Your task to perform on an android device: Go to CNN.com Image 0: 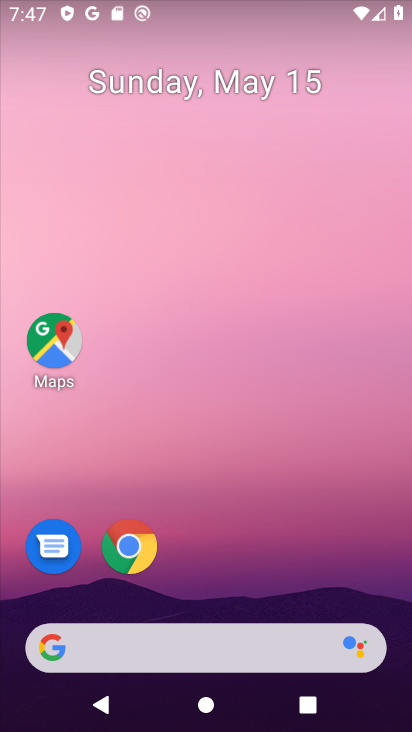
Step 0: click (247, 646)
Your task to perform on an android device: Go to CNN.com Image 1: 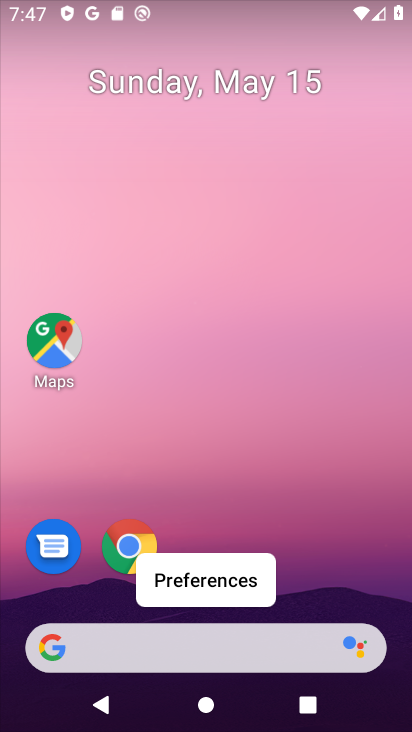
Step 1: click (244, 660)
Your task to perform on an android device: Go to CNN.com Image 2: 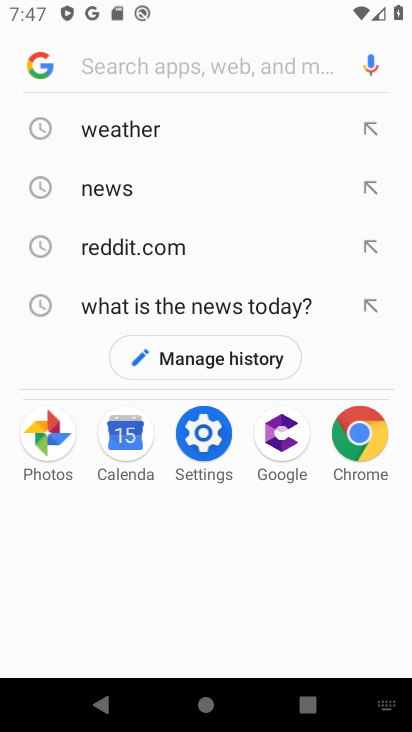
Step 2: type "cnn.com"
Your task to perform on an android device: Go to CNN.com Image 3: 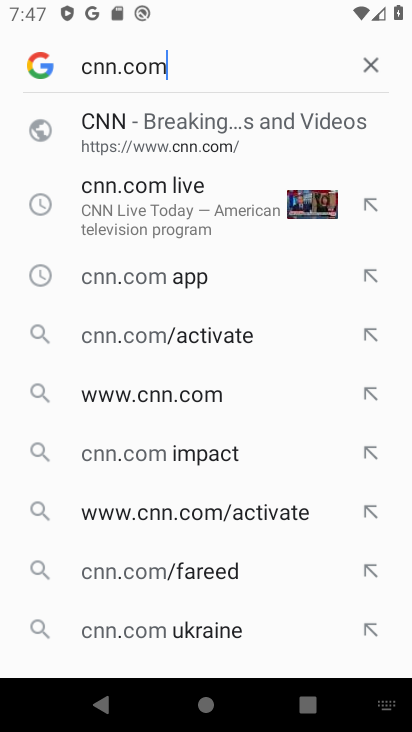
Step 3: click (102, 128)
Your task to perform on an android device: Go to CNN.com Image 4: 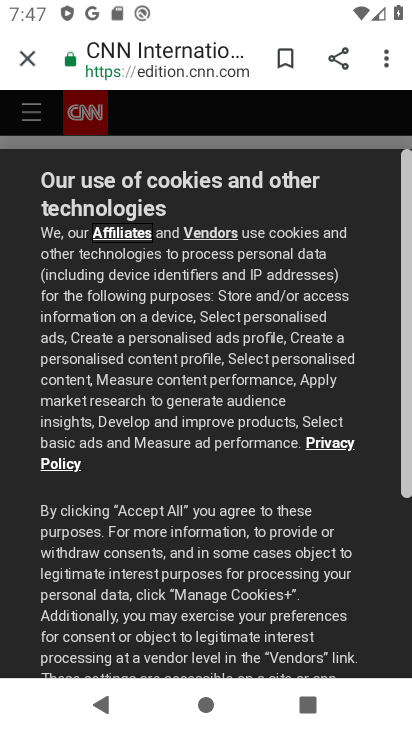
Step 4: task complete